Your task to perform on an android device: Open the calendar and show me this week's events? Image 0: 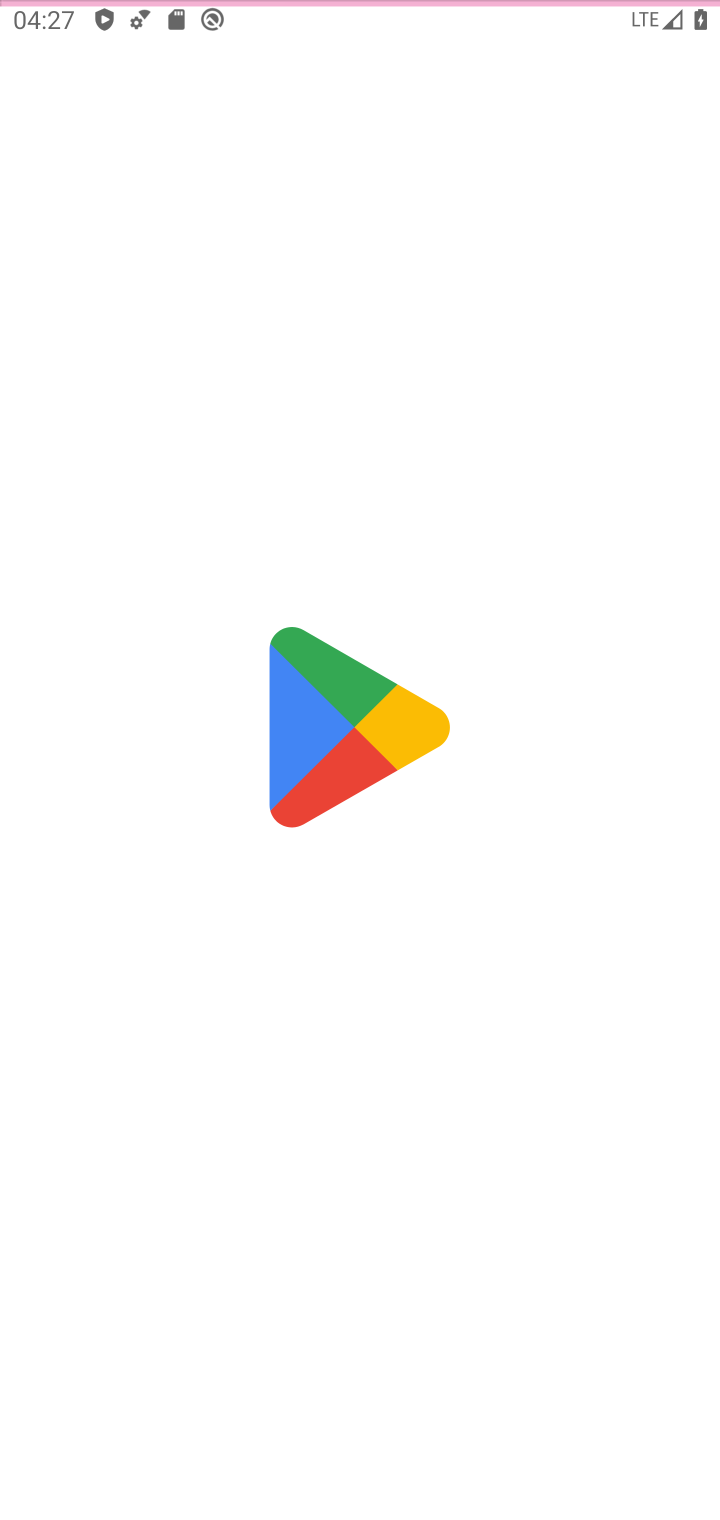
Step 0: press back button
Your task to perform on an android device: Open the calendar and show me this week's events? Image 1: 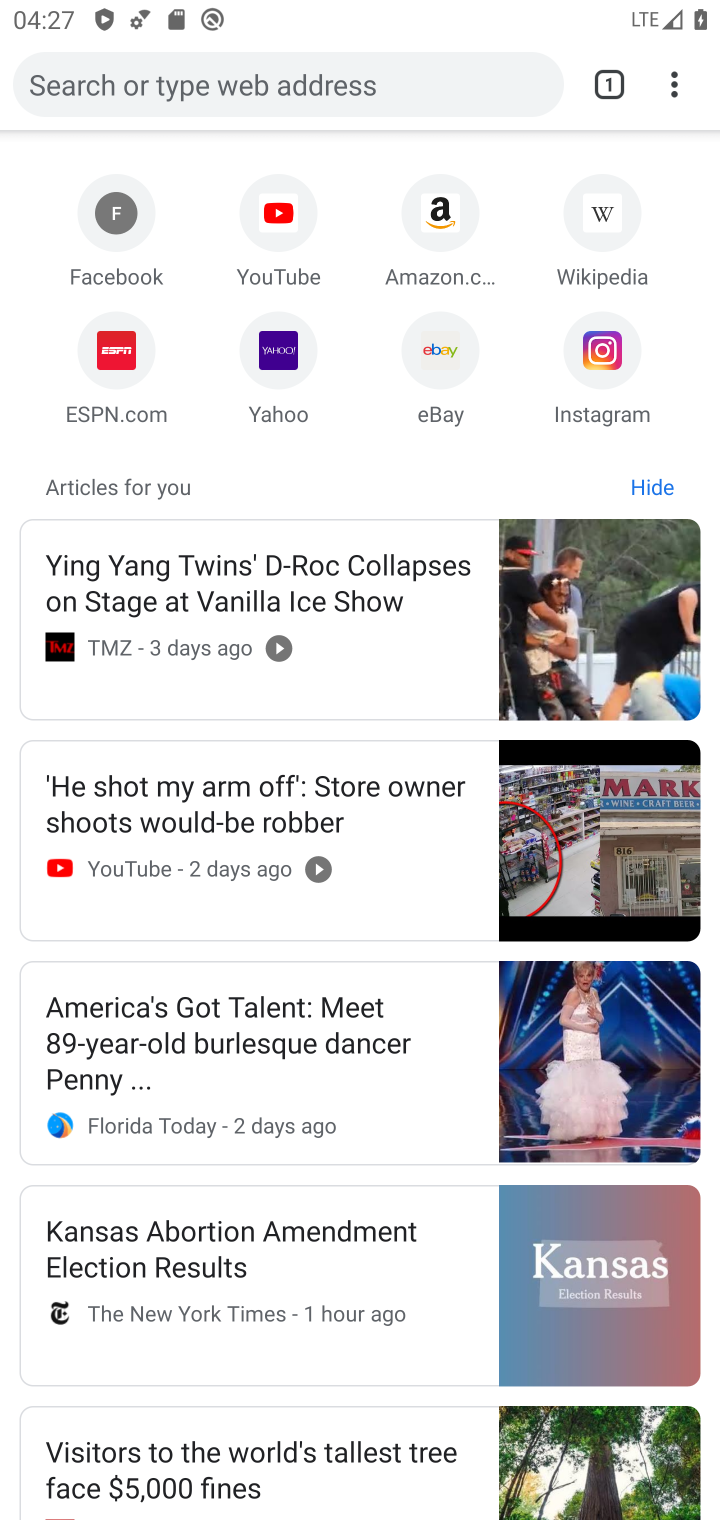
Step 1: press home button
Your task to perform on an android device: Open the calendar and show me this week's events? Image 2: 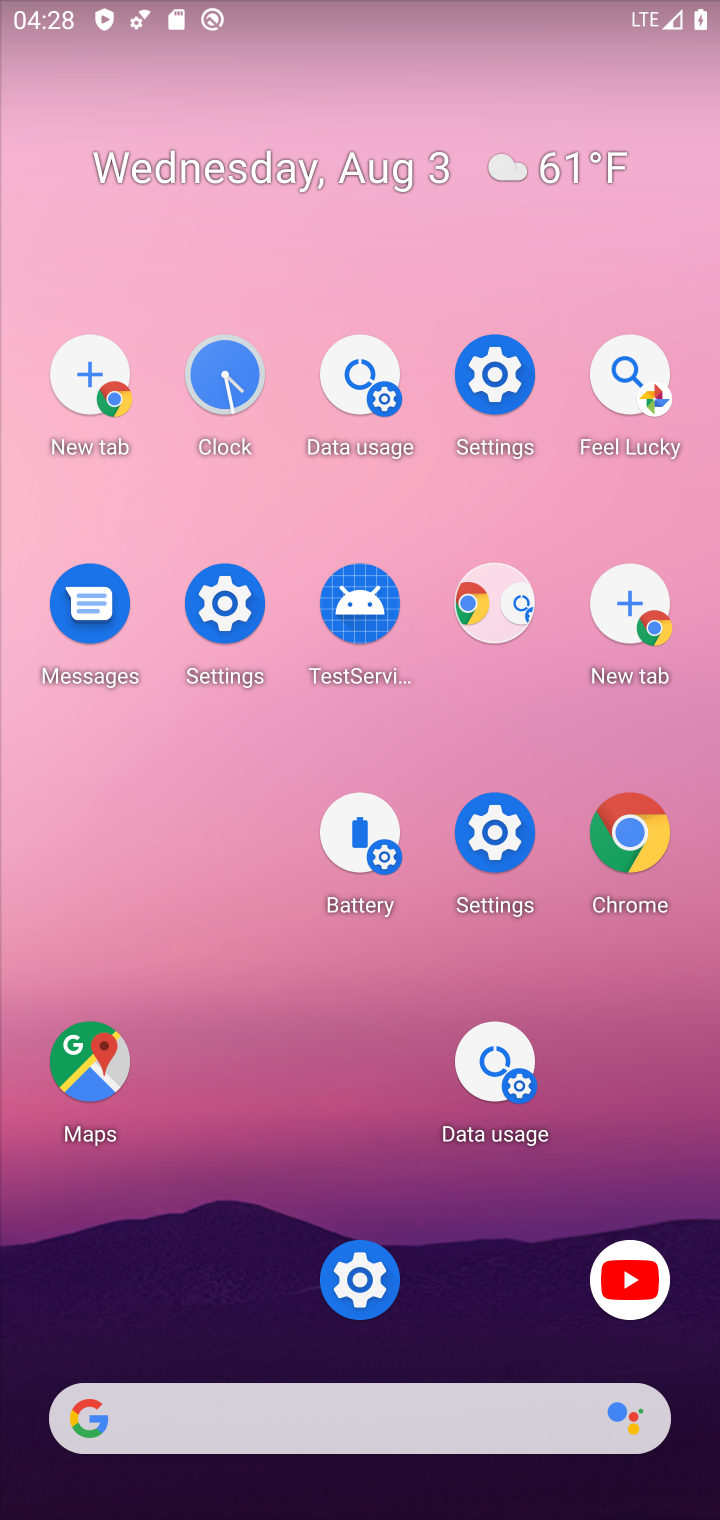
Step 2: drag from (434, 848) to (227, 517)
Your task to perform on an android device: Open the calendar and show me this week's events? Image 3: 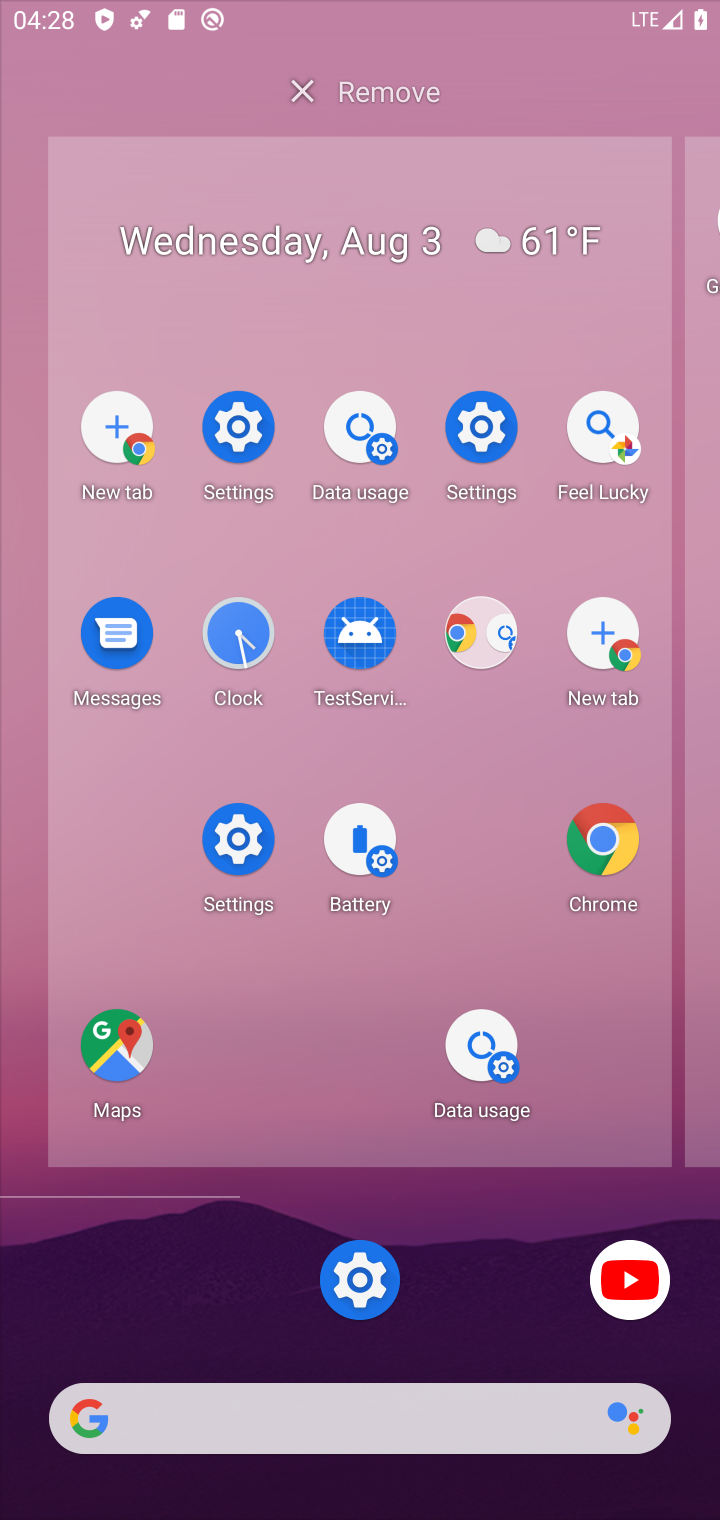
Step 3: drag from (486, 675) to (525, 443)
Your task to perform on an android device: Open the calendar and show me this week's events? Image 4: 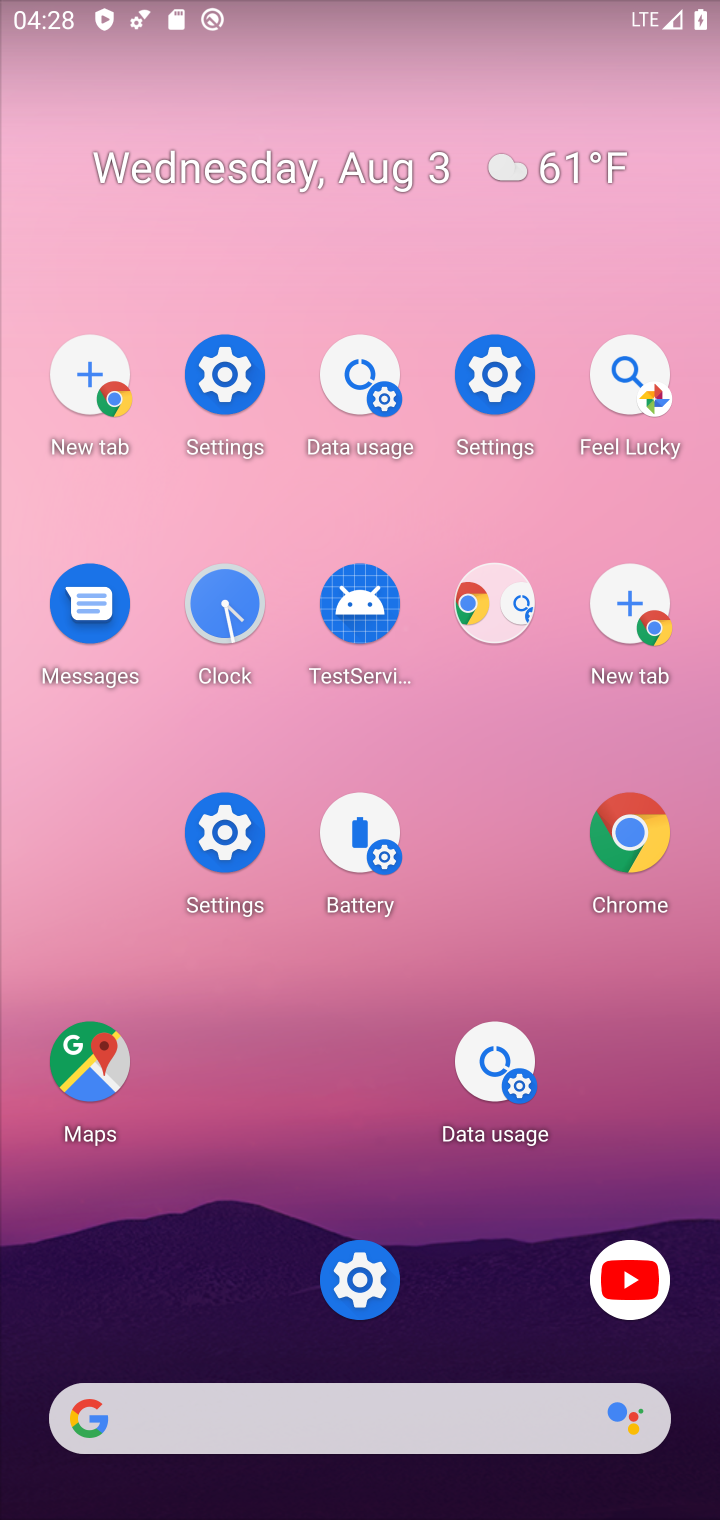
Step 4: drag from (609, 847) to (682, 473)
Your task to perform on an android device: Open the calendar and show me this week's events? Image 5: 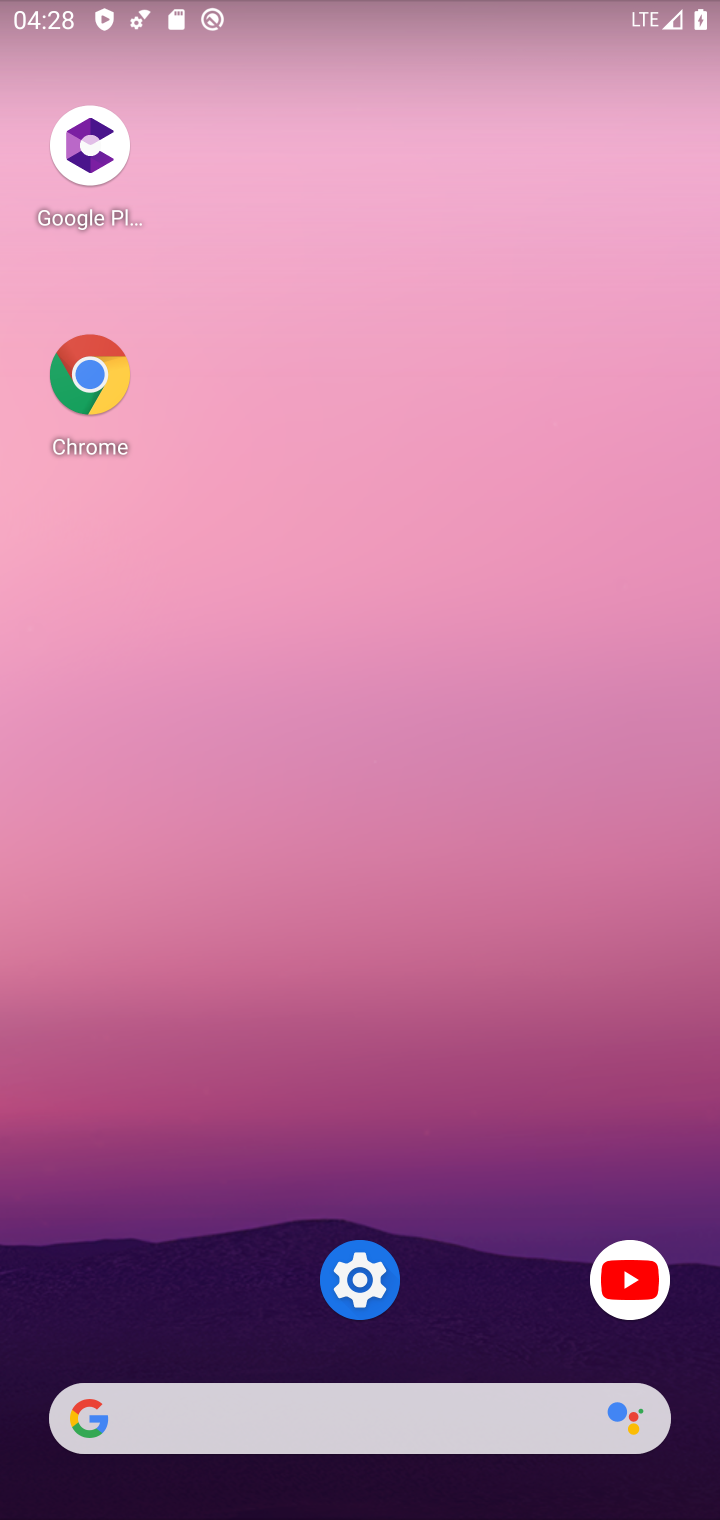
Step 5: drag from (404, 1171) to (320, 3)
Your task to perform on an android device: Open the calendar and show me this week's events? Image 6: 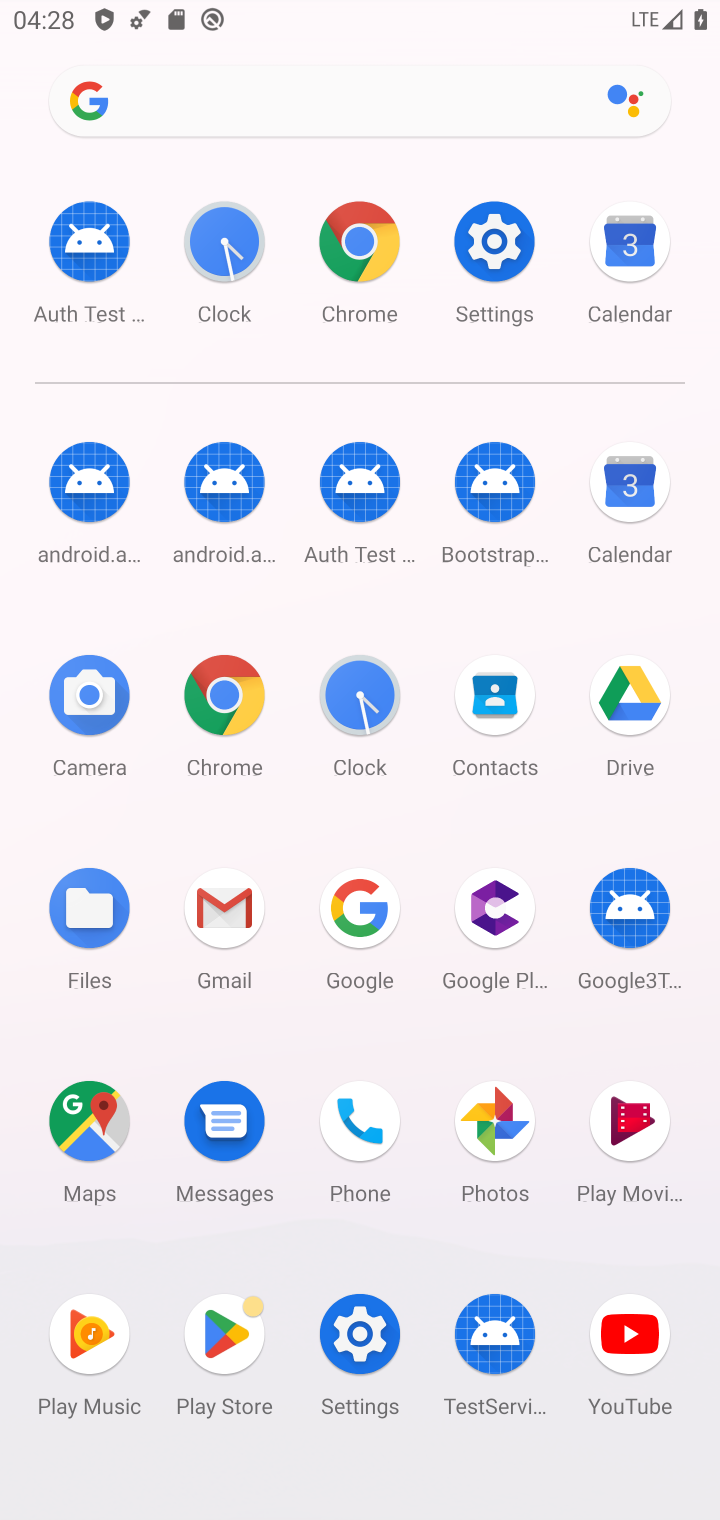
Step 6: drag from (604, 249) to (682, 204)
Your task to perform on an android device: Open the calendar and show me this week's events? Image 7: 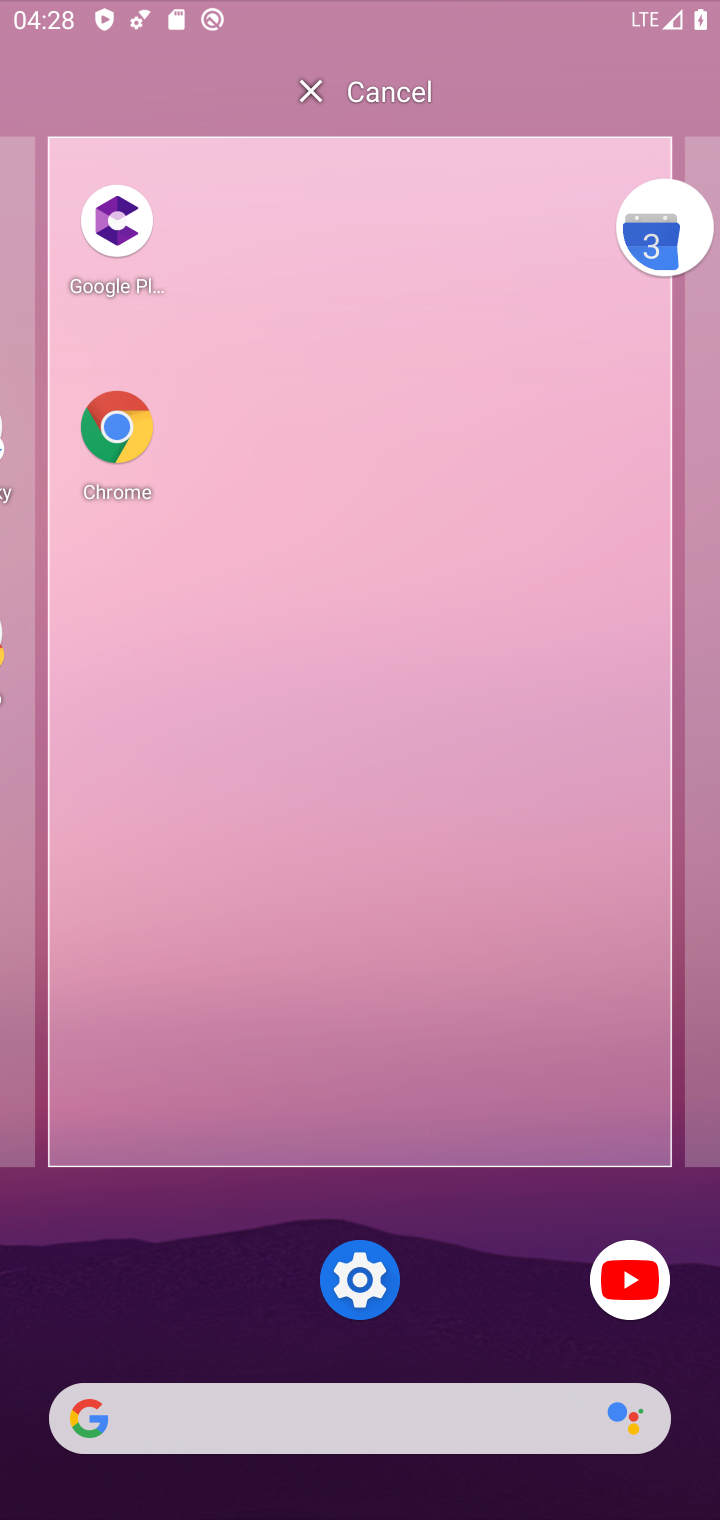
Step 7: click (609, 248)
Your task to perform on an android device: Open the calendar and show me this week's events? Image 8: 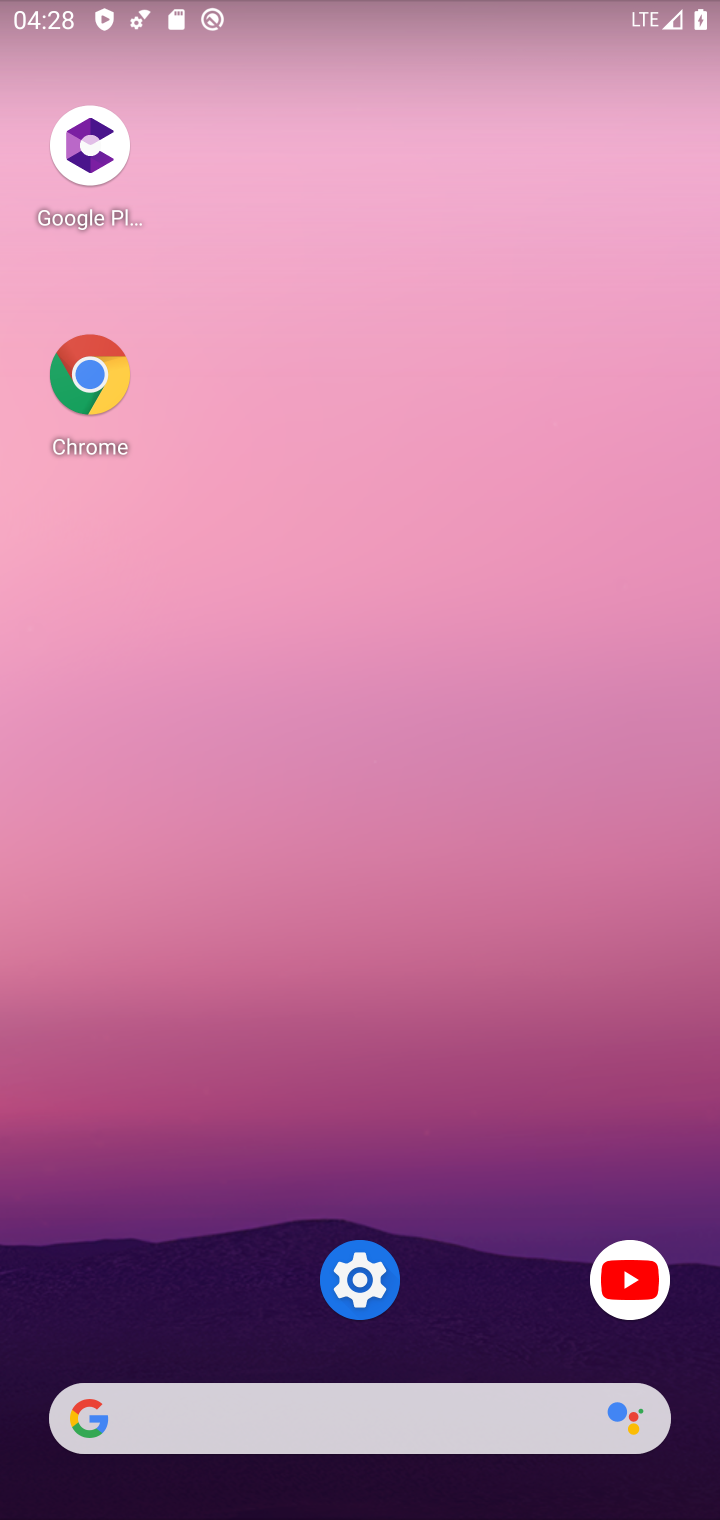
Step 8: drag from (306, 1267) to (376, 773)
Your task to perform on an android device: Open the calendar and show me this week's events? Image 9: 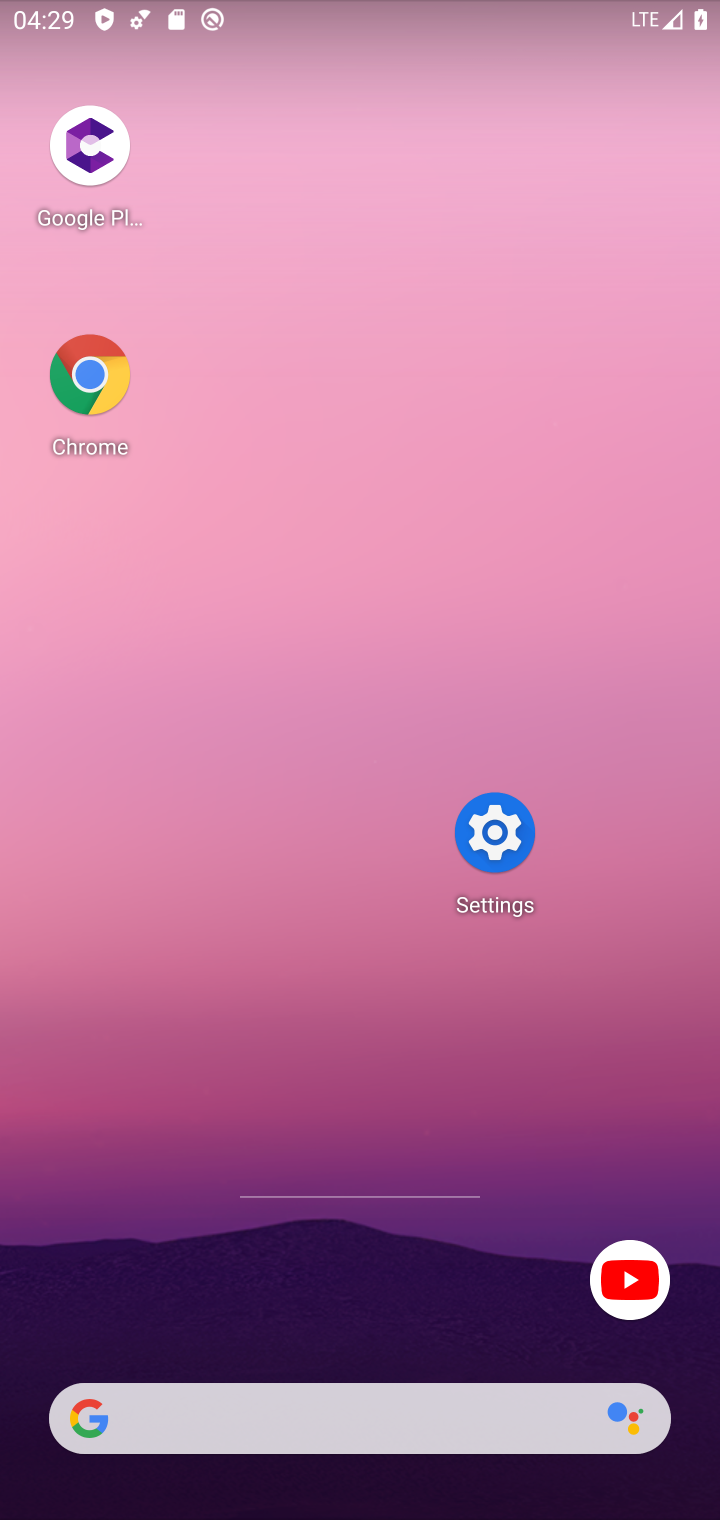
Step 9: drag from (560, 1072) to (427, 165)
Your task to perform on an android device: Open the calendar and show me this week's events? Image 10: 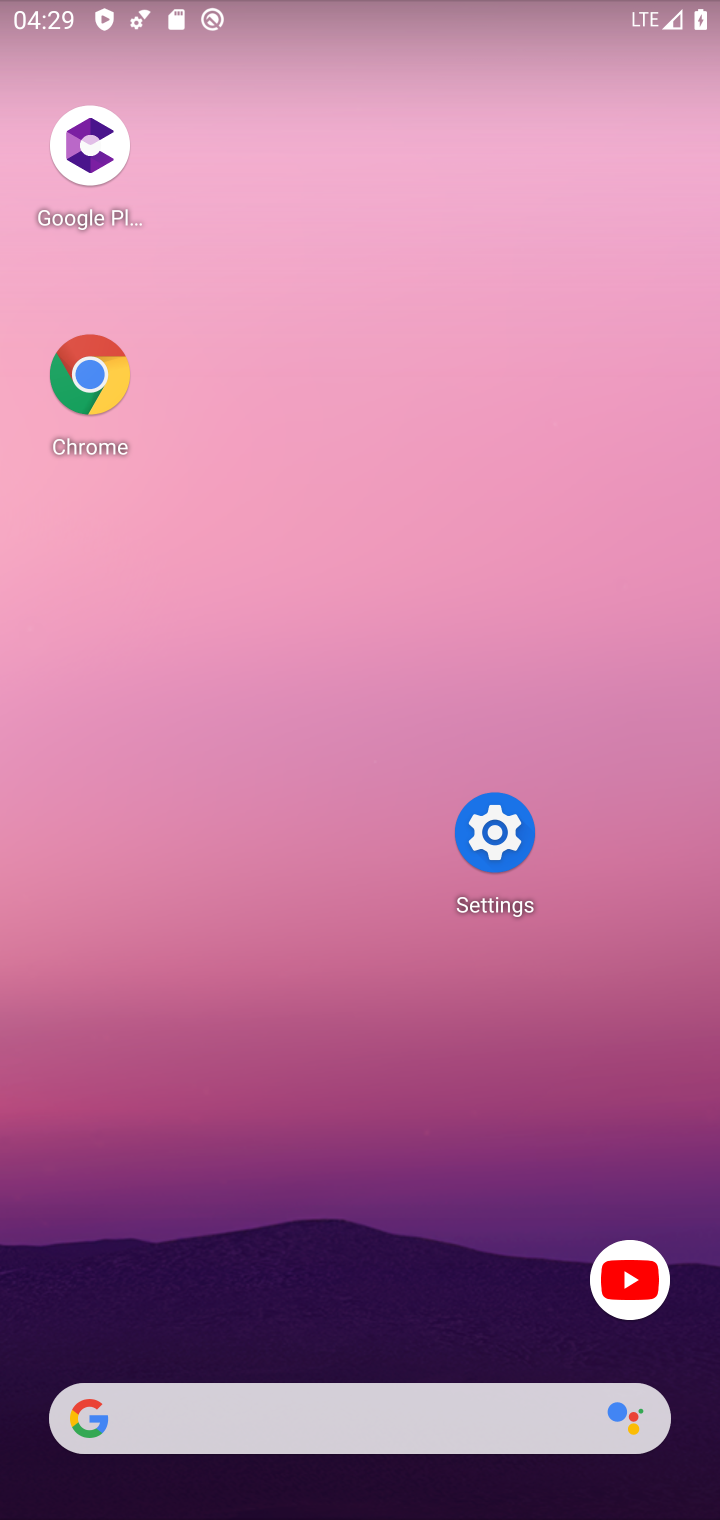
Step 10: drag from (374, 448) to (347, 130)
Your task to perform on an android device: Open the calendar and show me this week's events? Image 11: 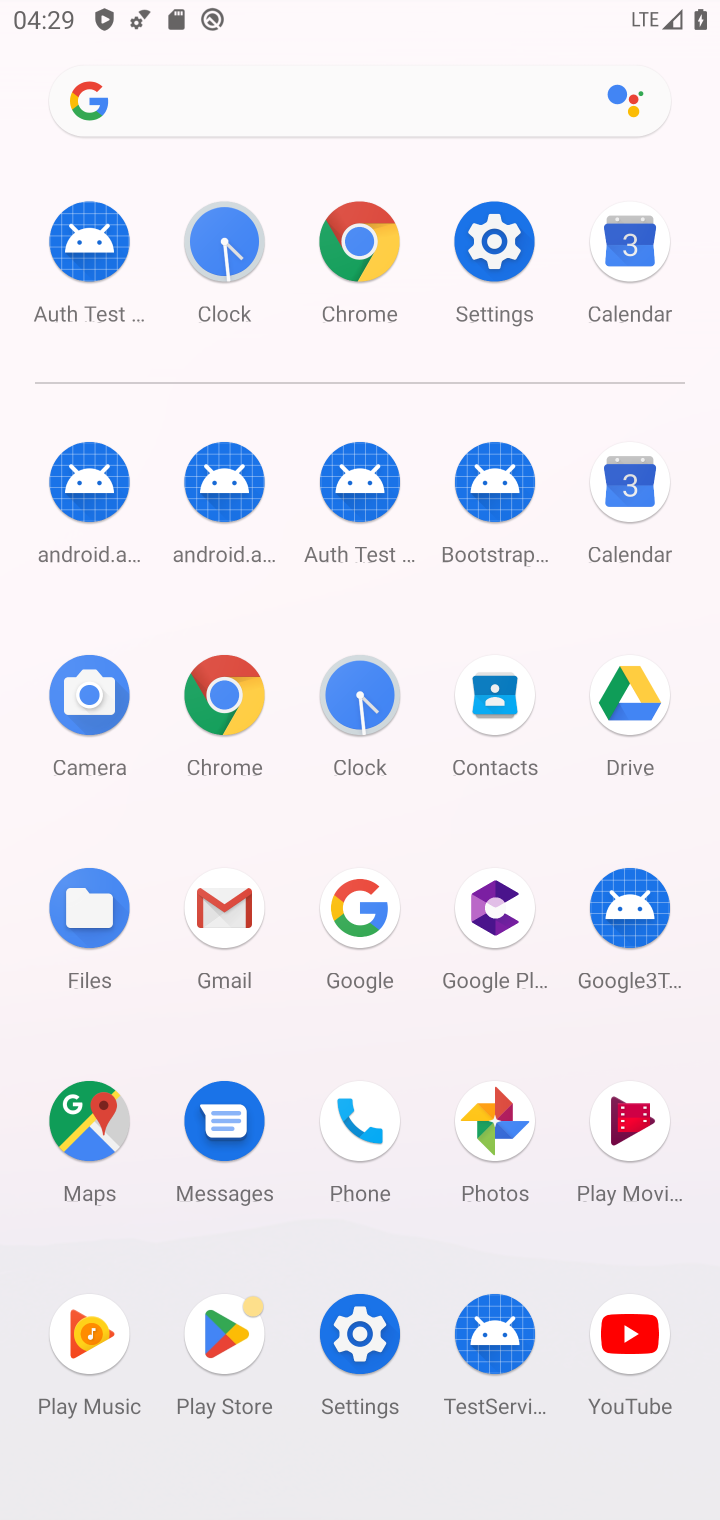
Step 11: click (615, 239)
Your task to perform on an android device: Open the calendar and show me this week's events? Image 12: 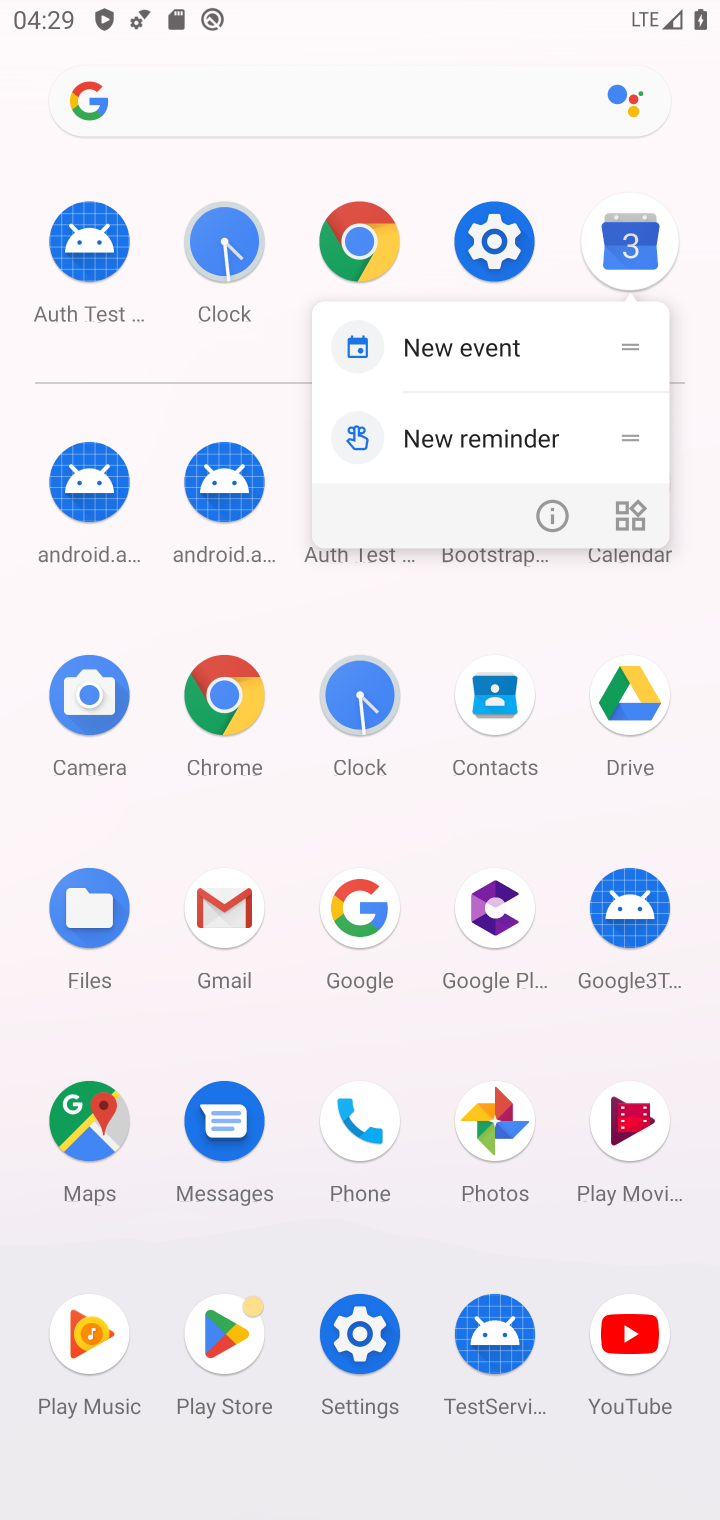
Step 12: click (618, 235)
Your task to perform on an android device: Open the calendar and show me this week's events? Image 13: 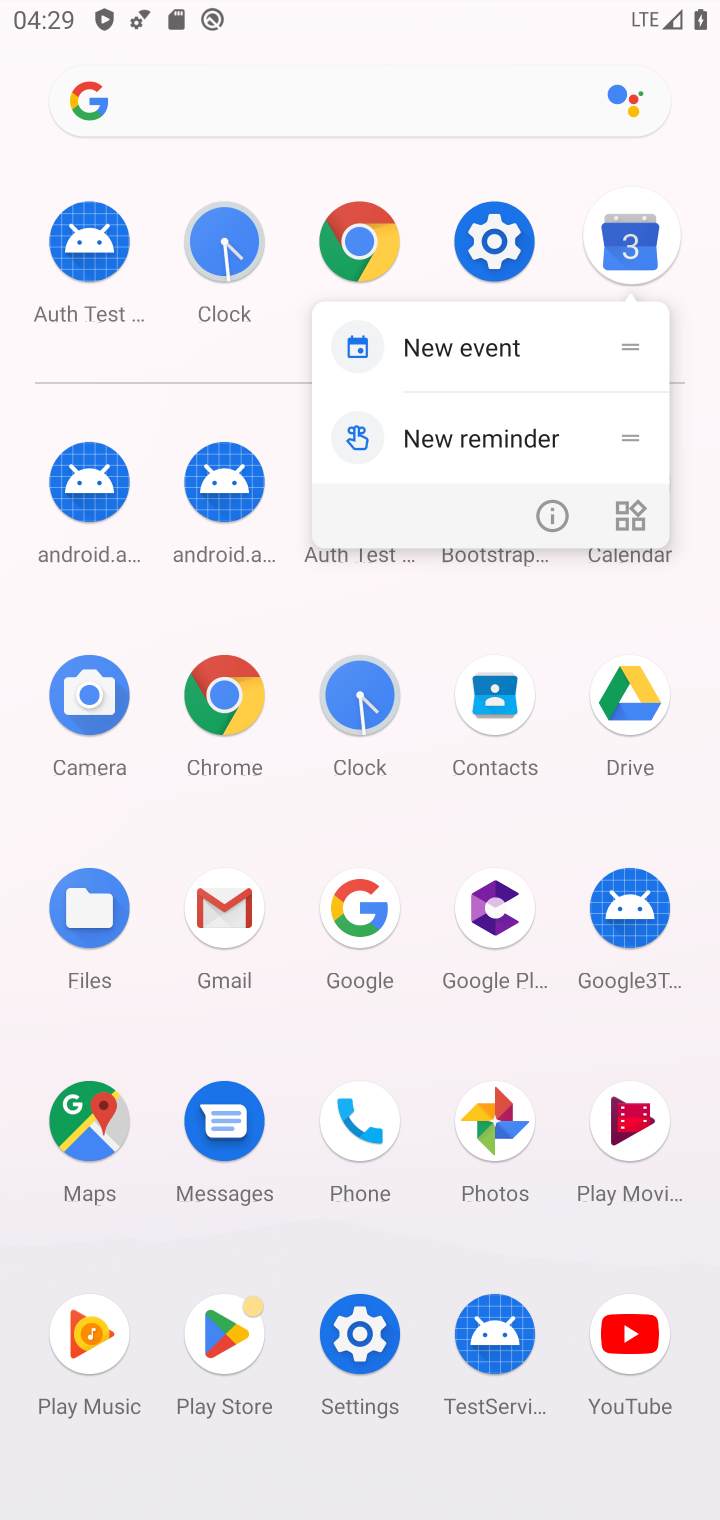
Step 13: click (618, 235)
Your task to perform on an android device: Open the calendar and show me this week's events? Image 14: 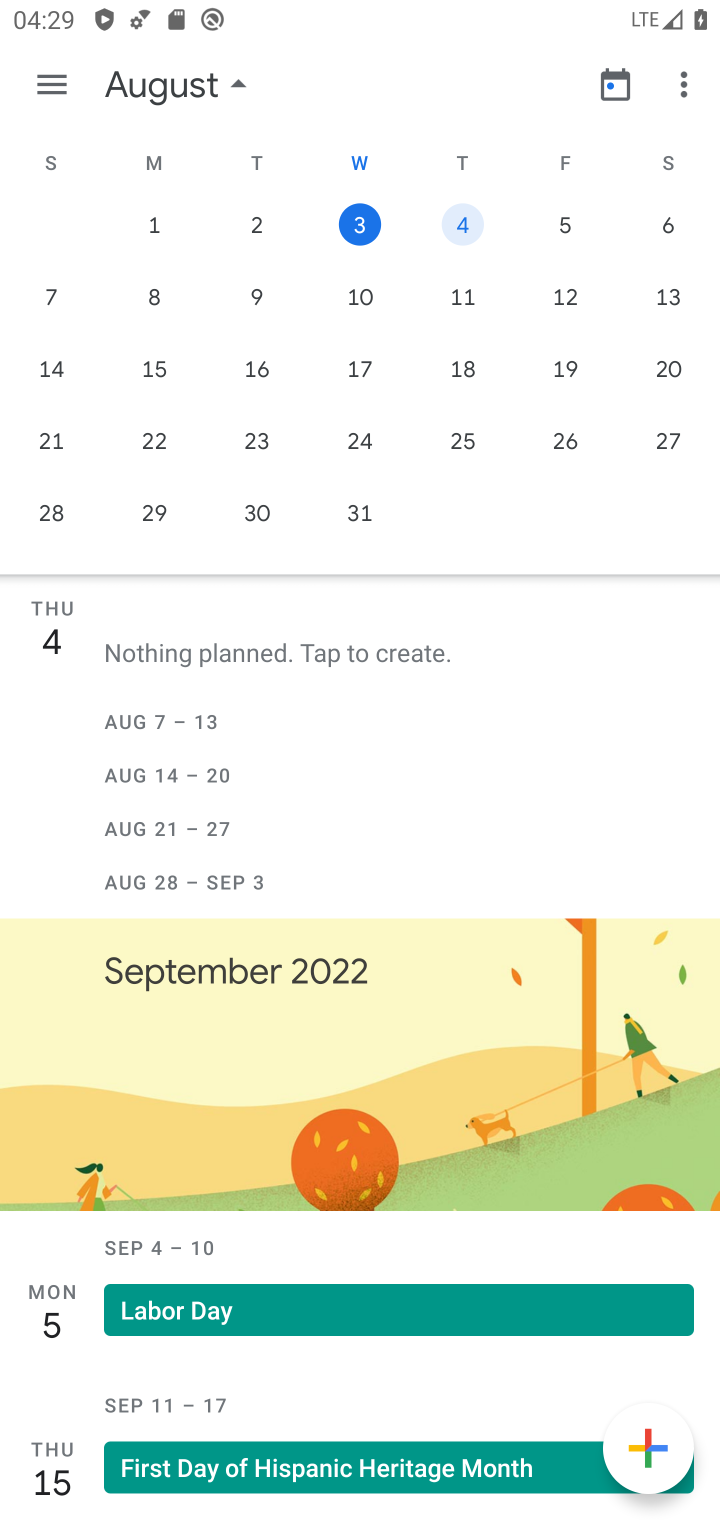
Step 14: click (566, 223)
Your task to perform on an android device: Open the calendar and show me this week's events? Image 15: 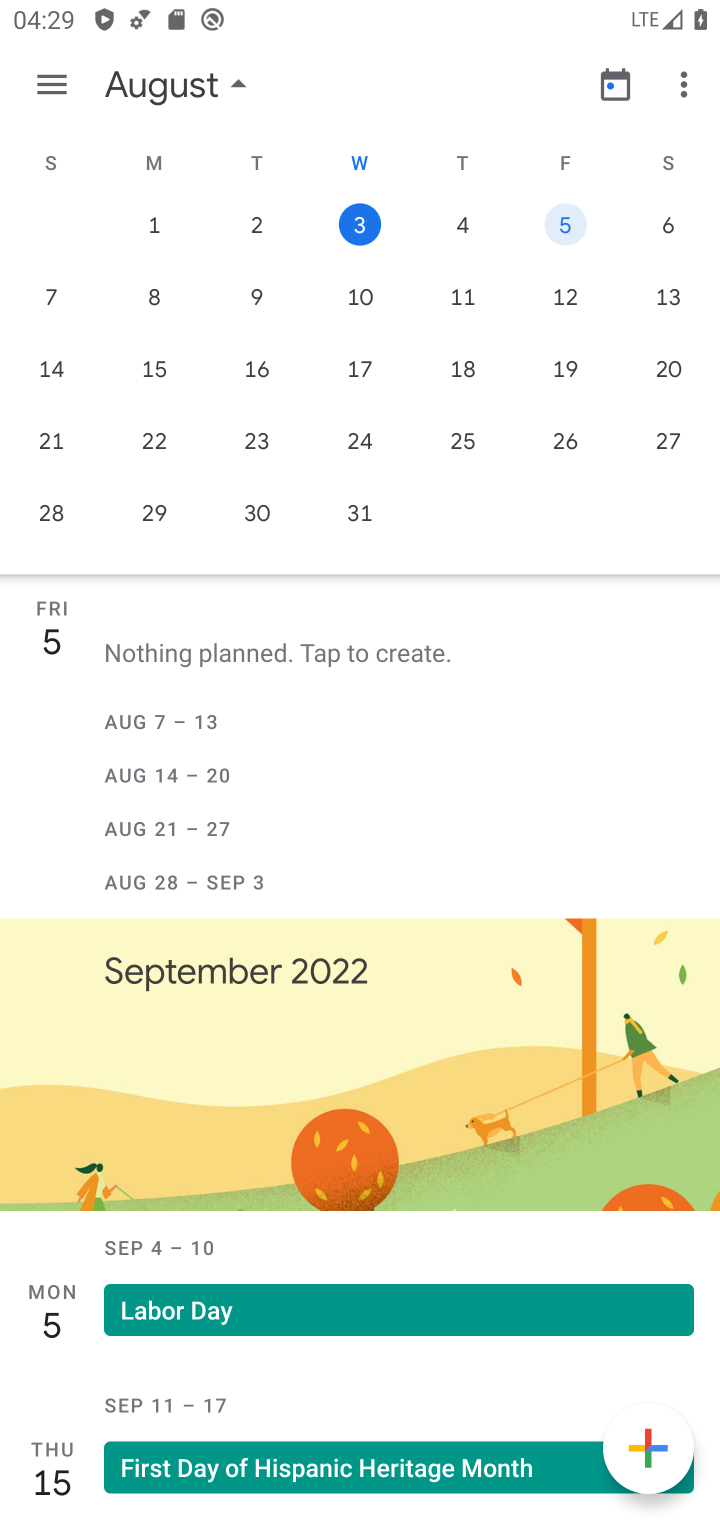
Step 15: click (573, 225)
Your task to perform on an android device: Open the calendar and show me this week's events? Image 16: 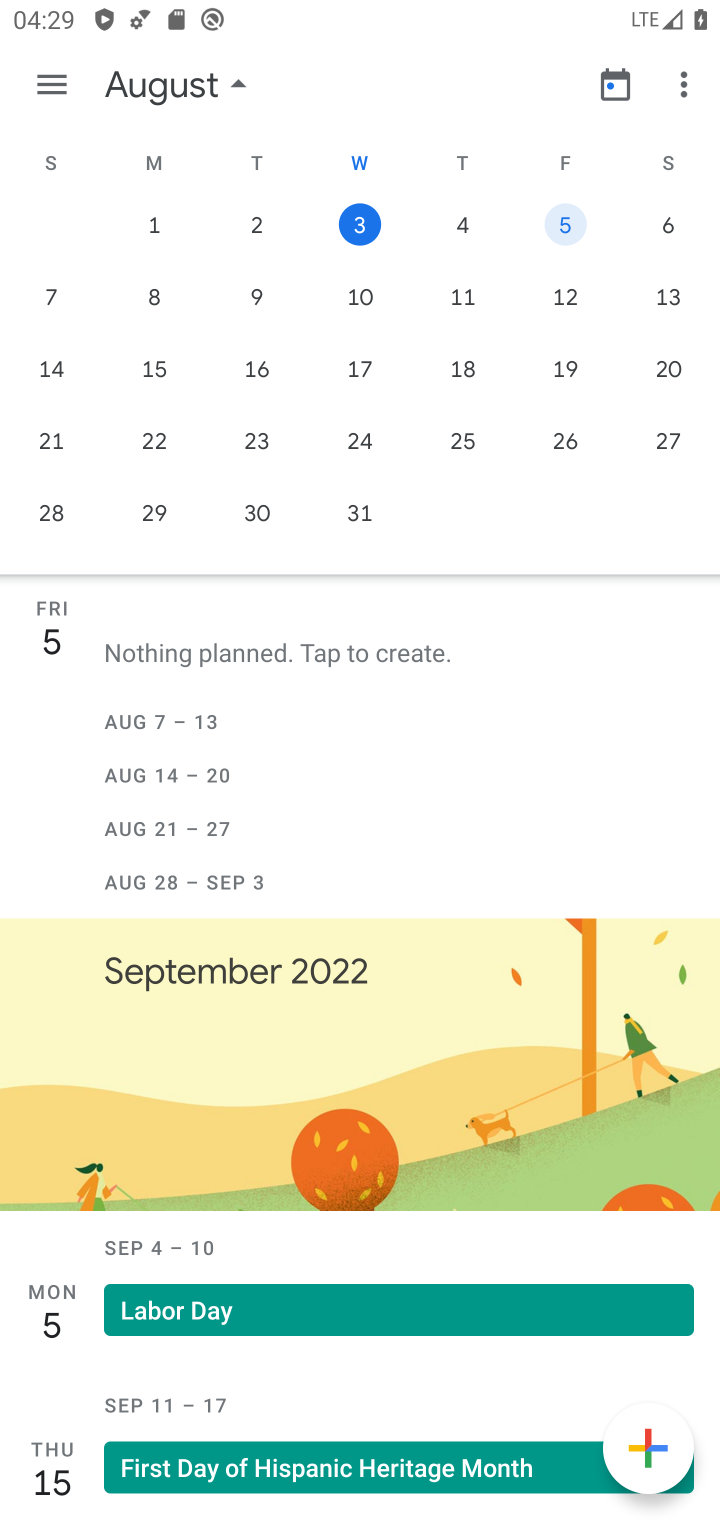
Step 16: click (573, 227)
Your task to perform on an android device: Open the calendar and show me this week's events? Image 17: 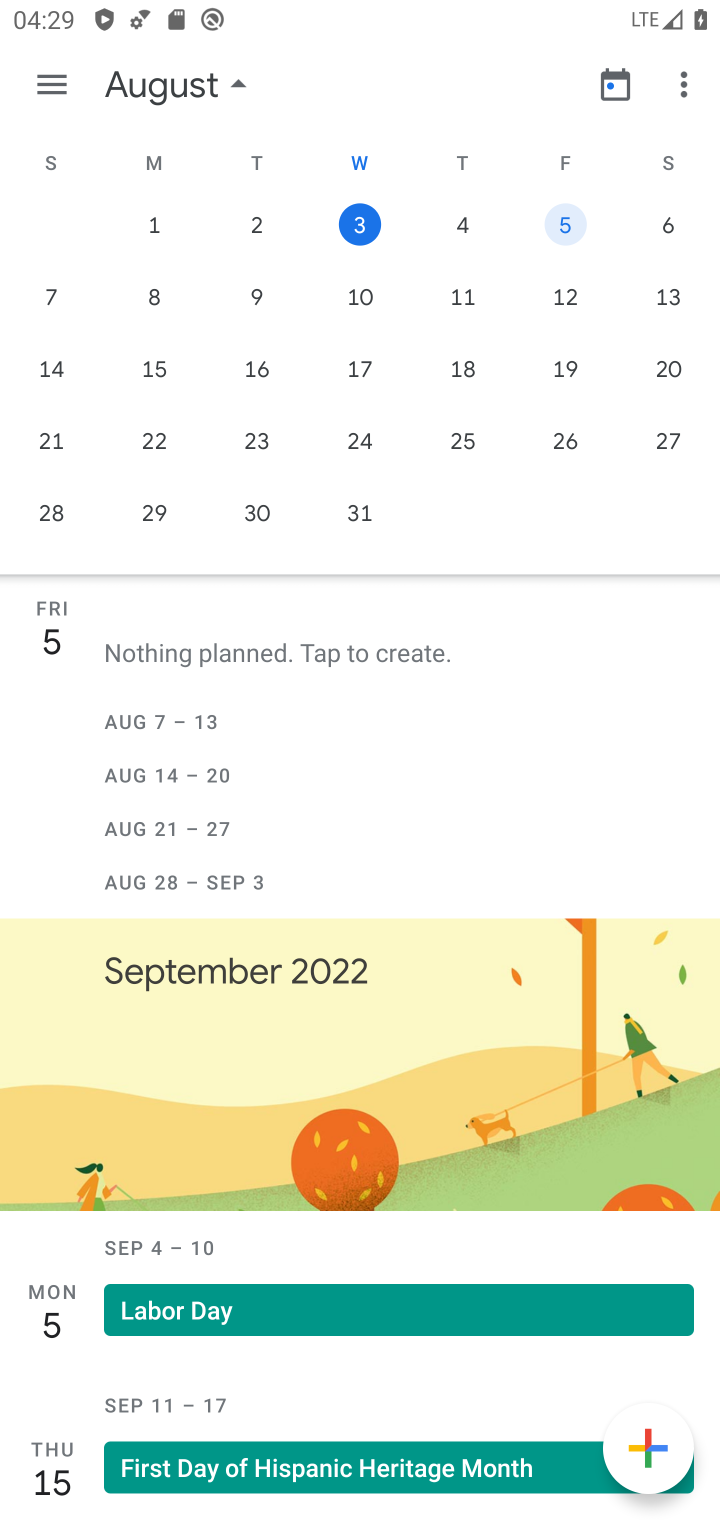
Step 17: click (577, 232)
Your task to perform on an android device: Open the calendar and show me this week's events? Image 18: 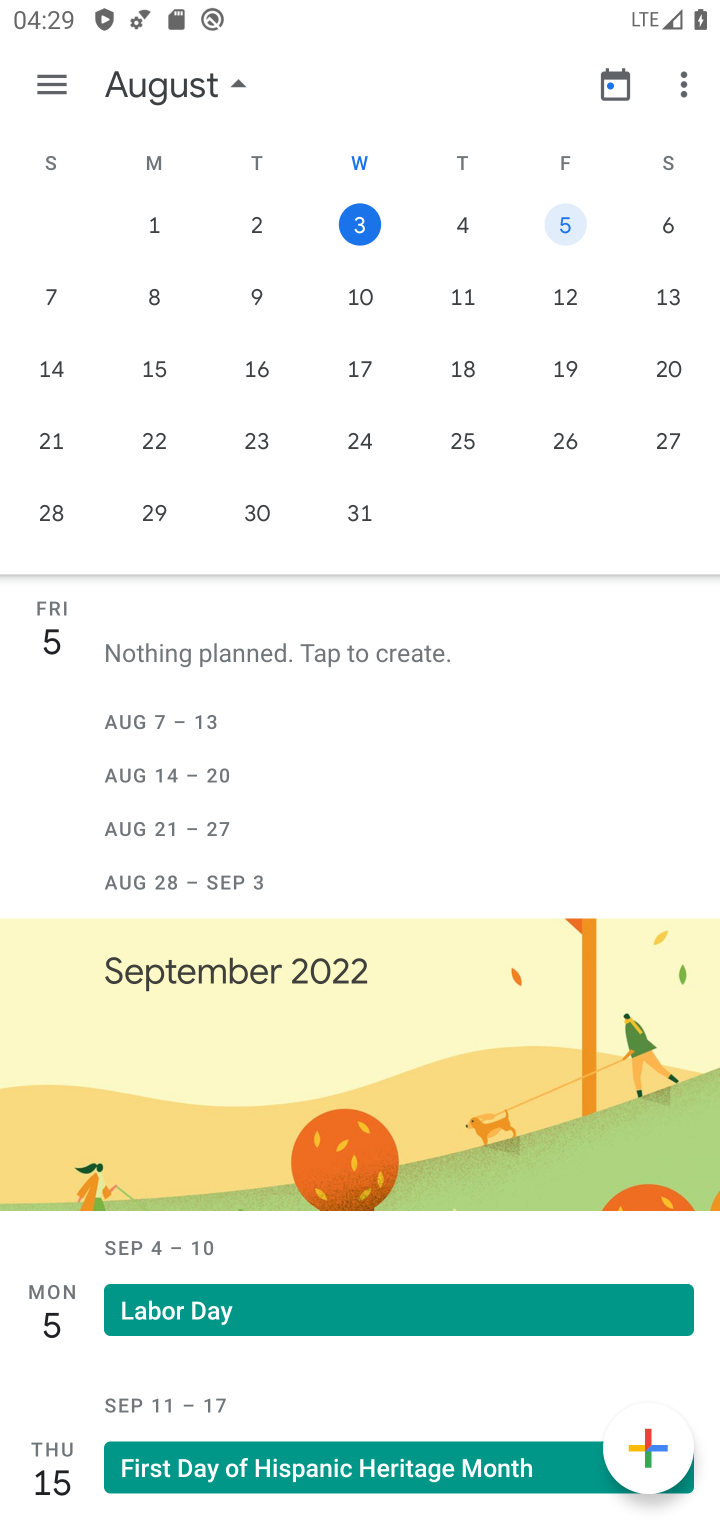
Step 18: click (580, 234)
Your task to perform on an android device: Open the calendar and show me this week's events? Image 19: 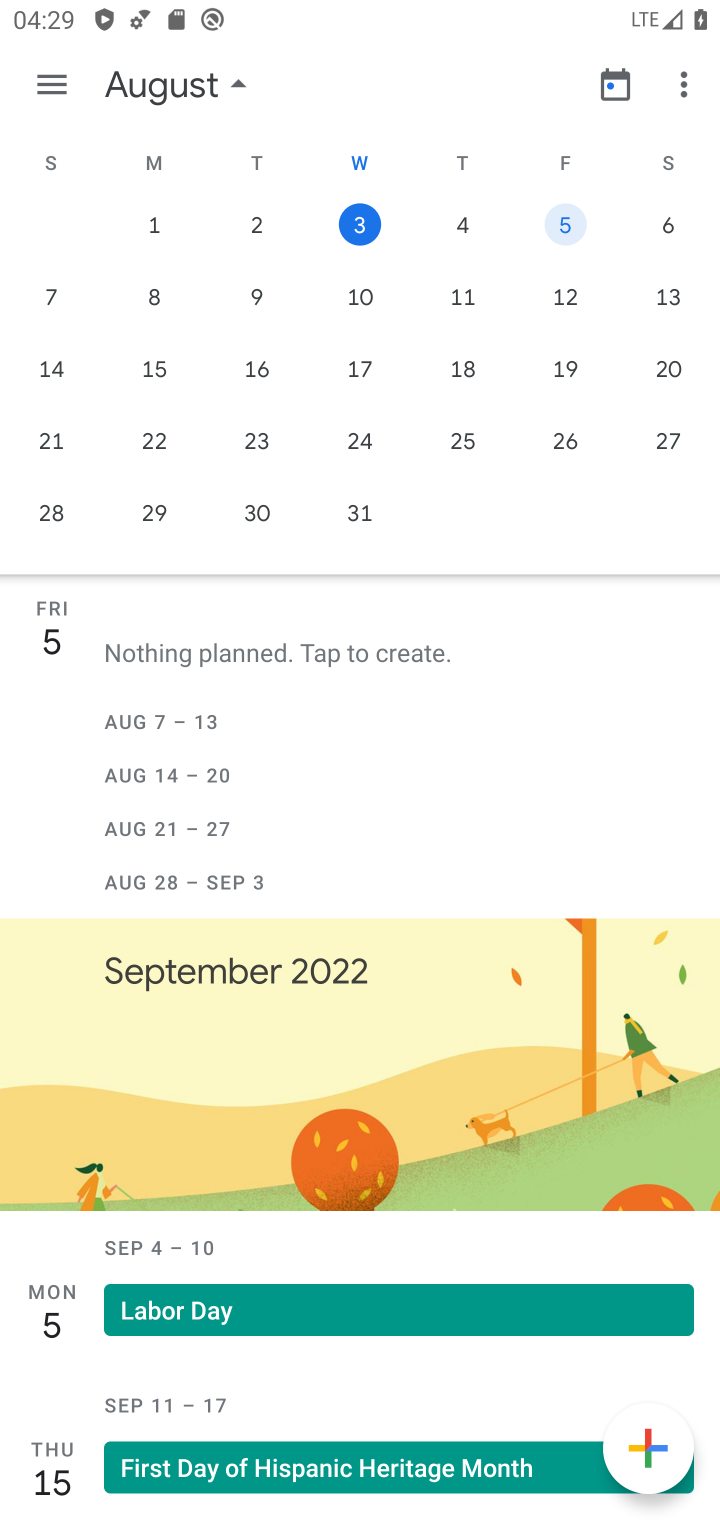
Step 19: task complete